Your task to perform on an android device: create a new album in the google photos Image 0: 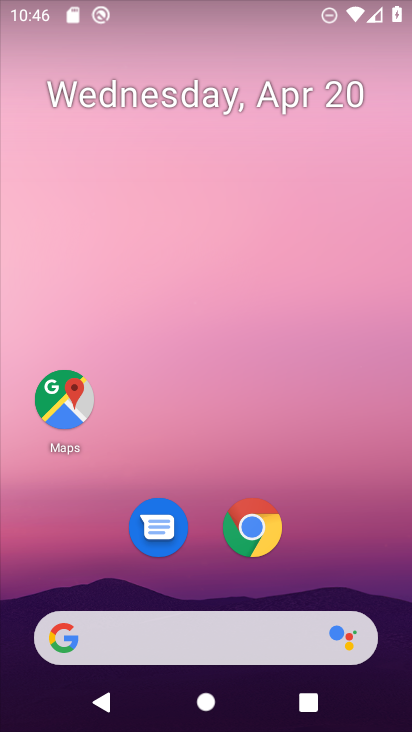
Step 0: drag from (218, 574) to (347, 3)
Your task to perform on an android device: create a new album in the google photos Image 1: 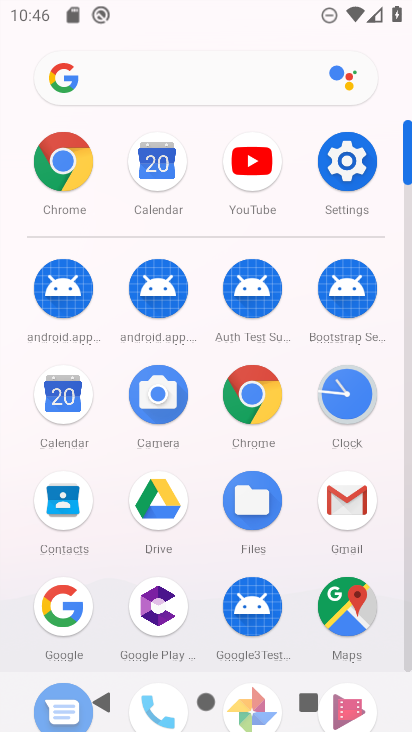
Step 1: drag from (195, 534) to (251, 83)
Your task to perform on an android device: create a new album in the google photos Image 2: 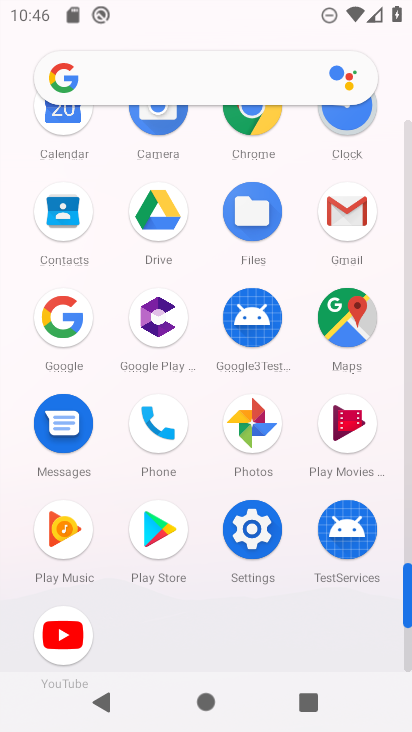
Step 2: click (234, 429)
Your task to perform on an android device: create a new album in the google photos Image 3: 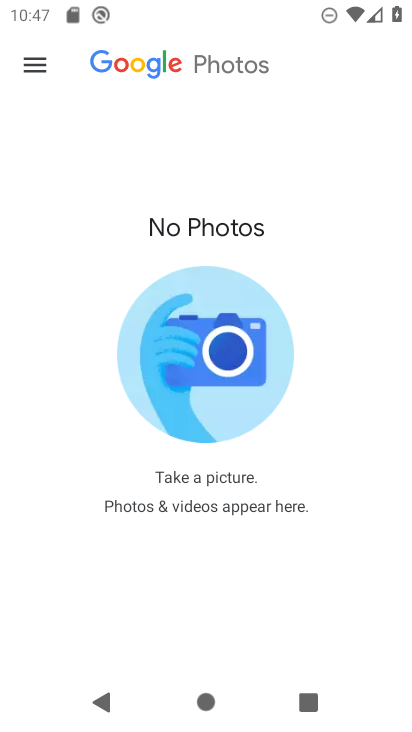
Step 3: click (27, 67)
Your task to perform on an android device: create a new album in the google photos Image 4: 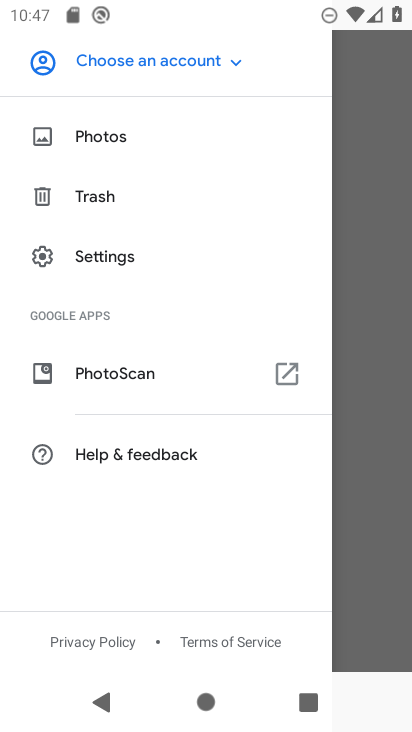
Step 4: click (109, 146)
Your task to perform on an android device: create a new album in the google photos Image 5: 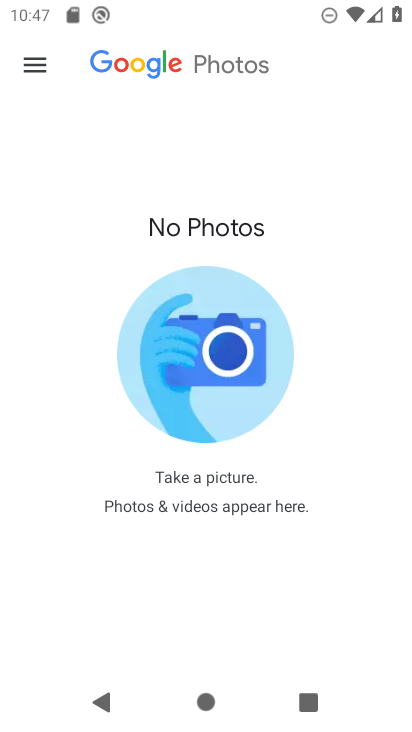
Step 5: drag from (213, 253) to (189, 337)
Your task to perform on an android device: create a new album in the google photos Image 6: 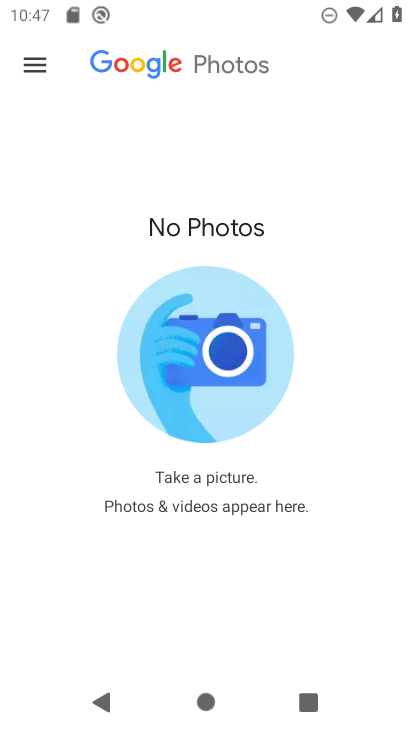
Step 6: click (37, 56)
Your task to perform on an android device: create a new album in the google photos Image 7: 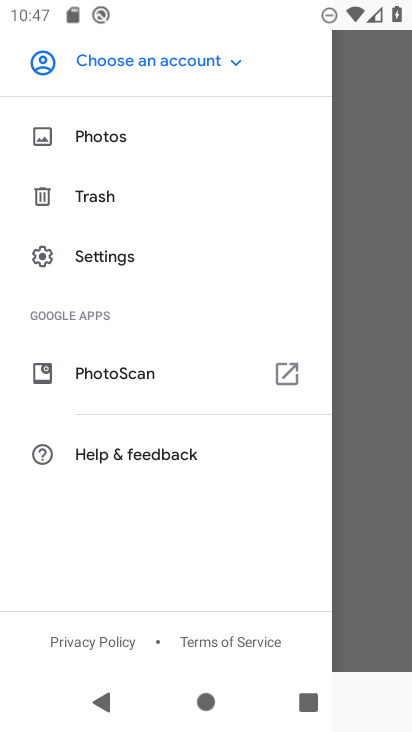
Step 7: click (106, 260)
Your task to perform on an android device: create a new album in the google photos Image 8: 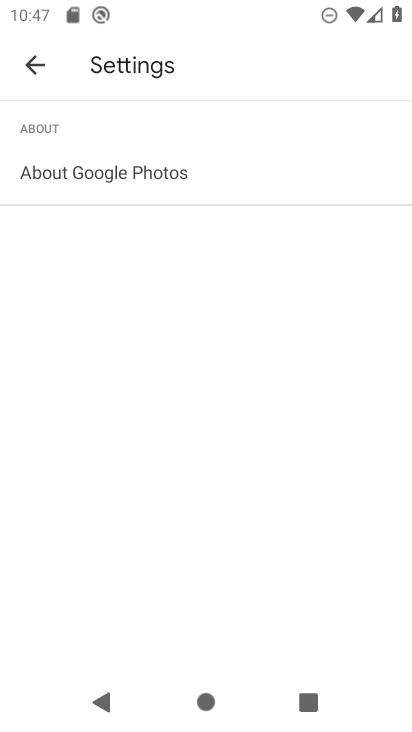
Step 8: click (132, 178)
Your task to perform on an android device: create a new album in the google photos Image 9: 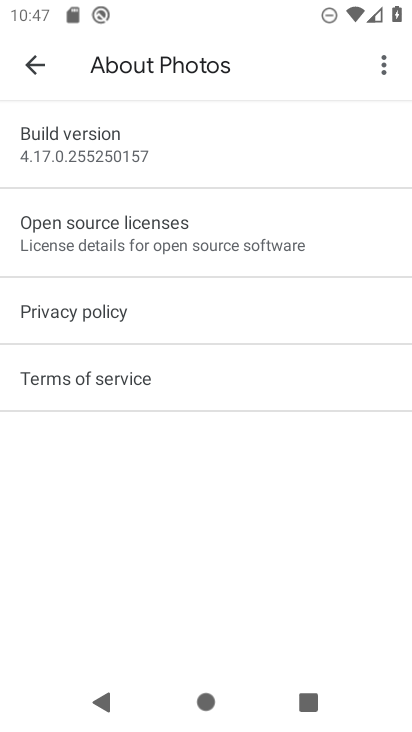
Step 9: task complete